Your task to perform on an android device: open chrome privacy settings Image 0: 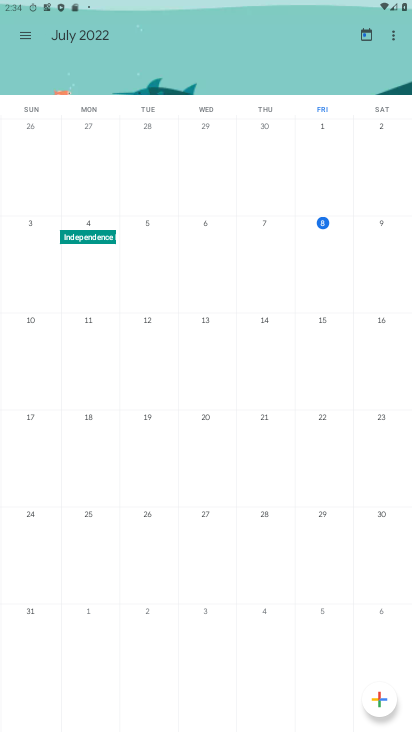
Step 0: press home button
Your task to perform on an android device: open chrome privacy settings Image 1: 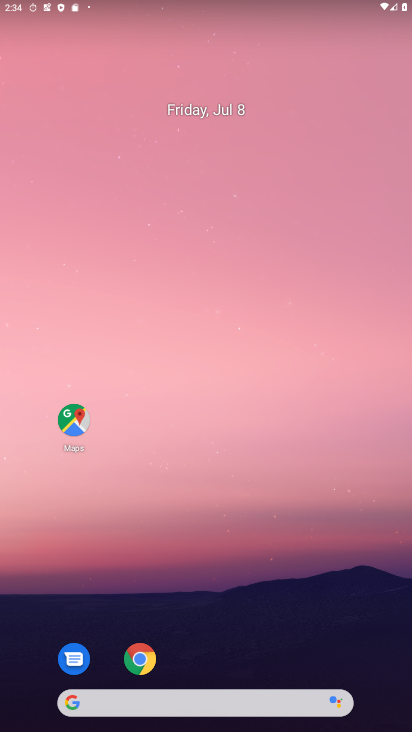
Step 1: click (141, 659)
Your task to perform on an android device: open chrome privacy settings Image 2: 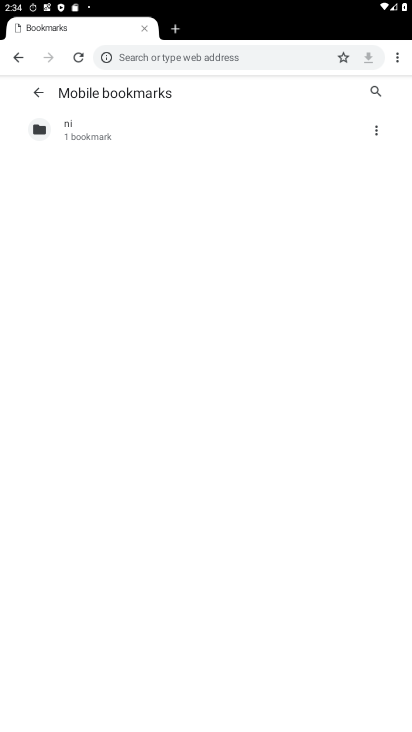
Step 2: click (395, 60)
Your task to perform on an android device: open chrome privacy settings Image 3: 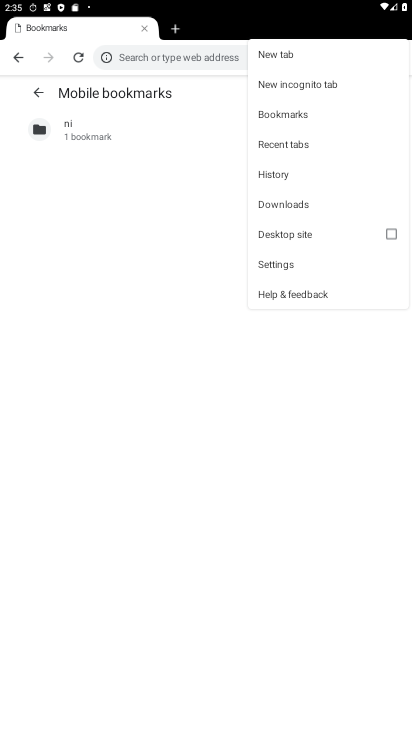
Step 3: click (295, 269)
Your task to perform on an android device: open chrome privacy settings Image 4: 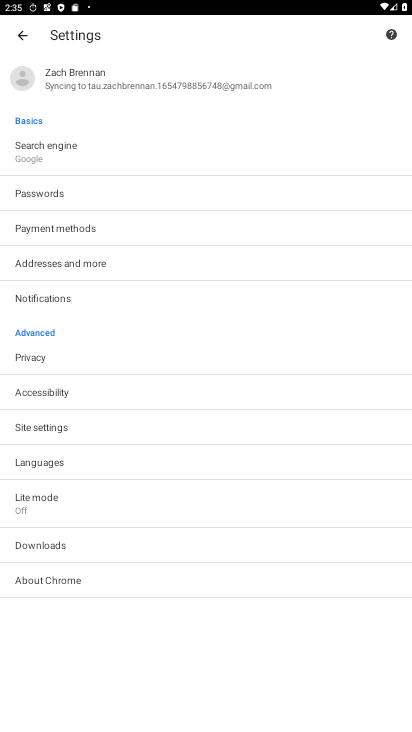
Step 4: click (81, 358)
Your task to perform on an android device: open chrome privacy settings Image 5: 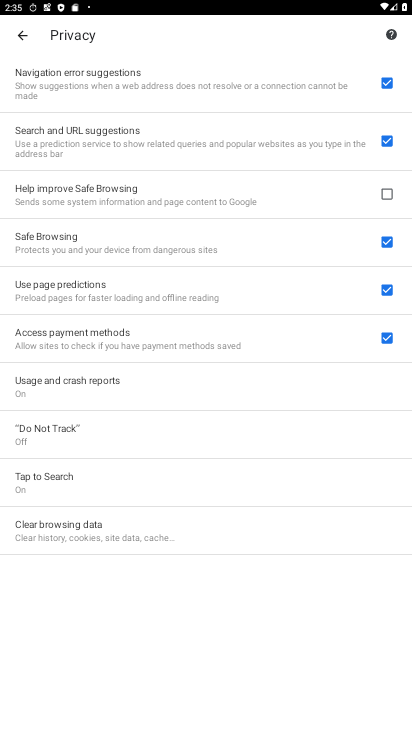
Step 5: task complete